Your task to perform on an android device: check data usage Image 0: 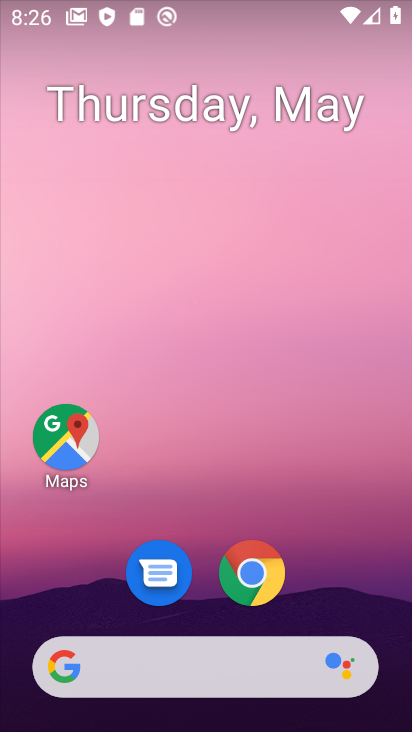
Step 0: drag from (146, 641) to (296, 114)
Your task to perform on an android device: check data usage Image 1: 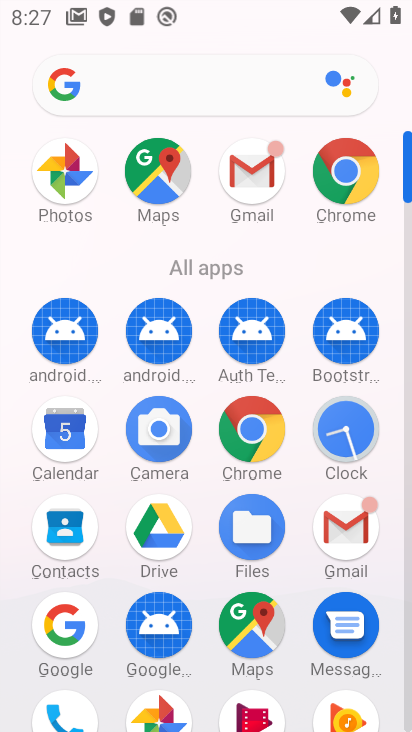
Step 1: drag from (166, 621) to (246, 320)
Your task to perform on an android device: check data usage Image 2: 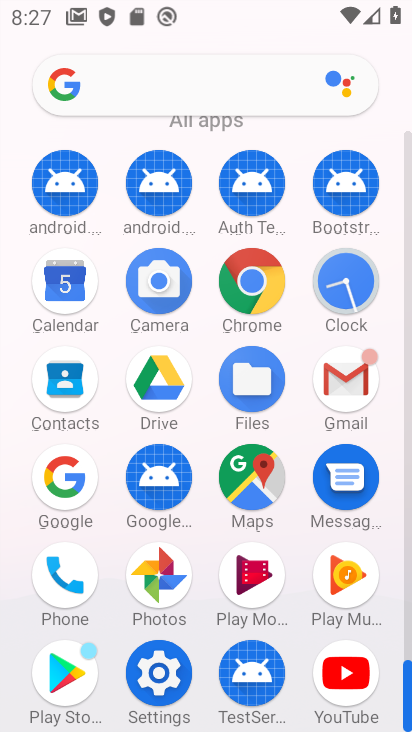
Step 2: click (159, 677)
Your task to perform on an android device: check data usage Image 3: 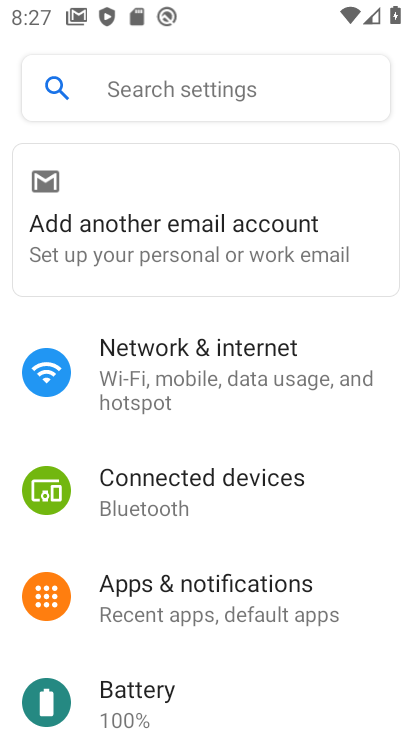
Step 3: click (232, 383)
Your task to perform on an android device: check data usage Image 4: 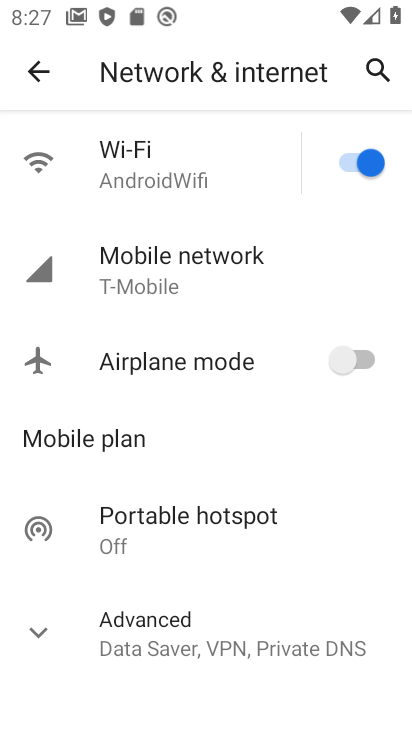
Step 4: click (242, 286)
Your task to perform on an android device: check data usage Image 5: 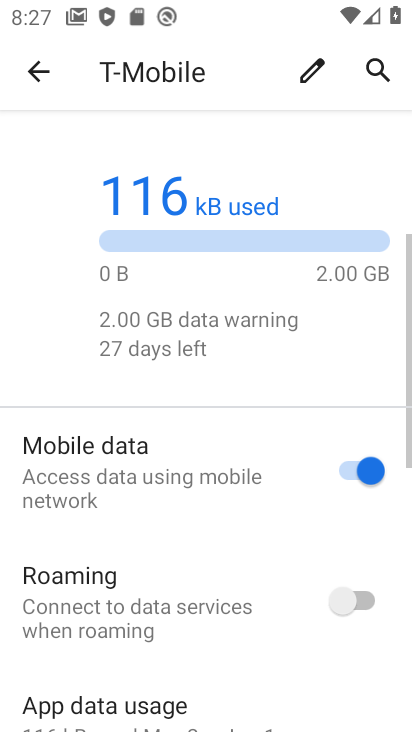
Step 5: drag from (178, 700) to (238, 454)
Your task to perform on an android device: check data usage Image 6: 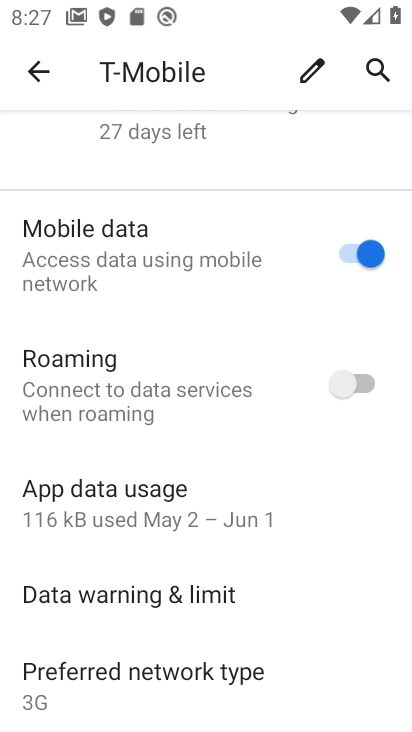
Step 6: click (161, 513)
Your task to perform on an android device: check data usage Image 7: 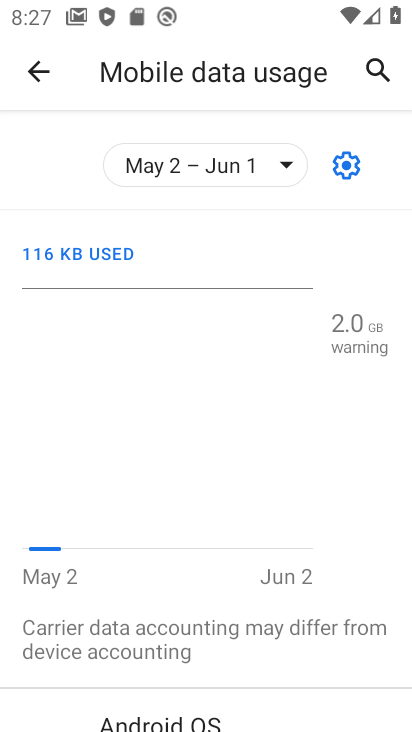
Step 7: task complete